Your task to perform on an android device: Open settings Image 0: 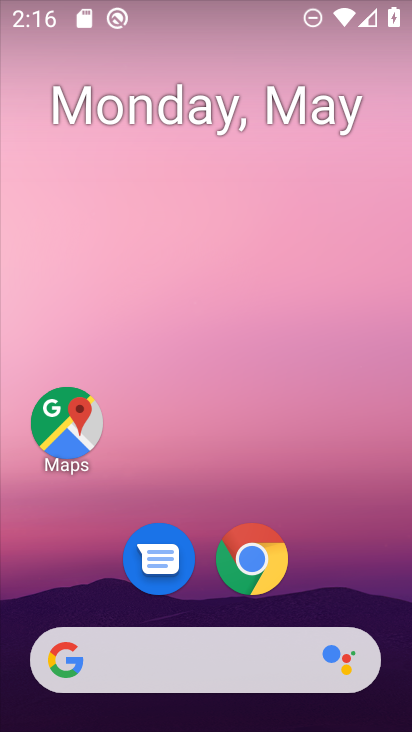
Step 0: drag from (342, 596) to (364, 3)
Your task to perform on an android device: Open settings Image 1: 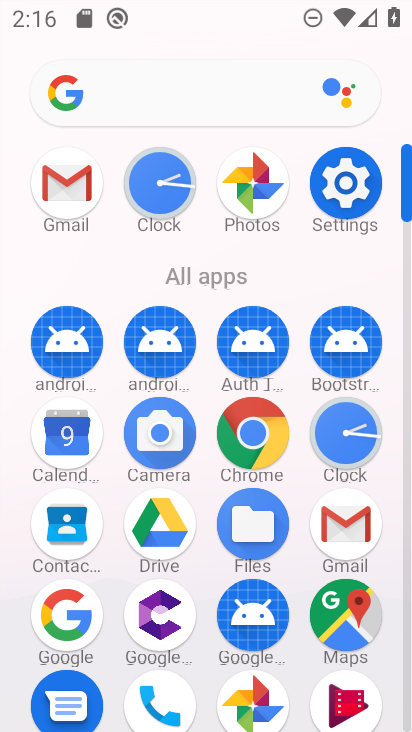
Step 1: click (350, 189)
Your task to perform on an android device: Open settings Image 2: 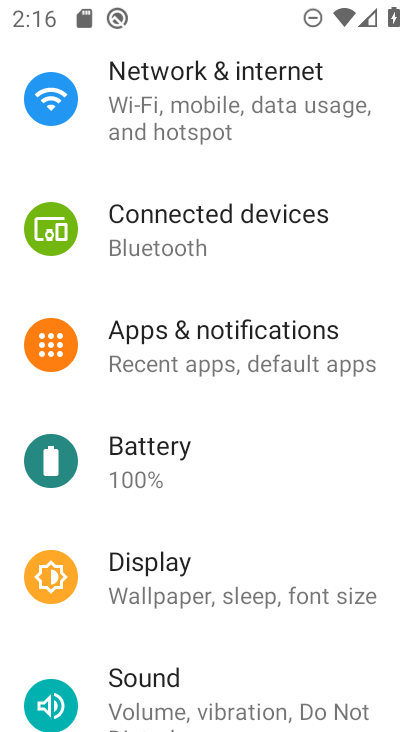
Step 2: task complete